Your task to perform on an android device: turn on wifi Image 0: 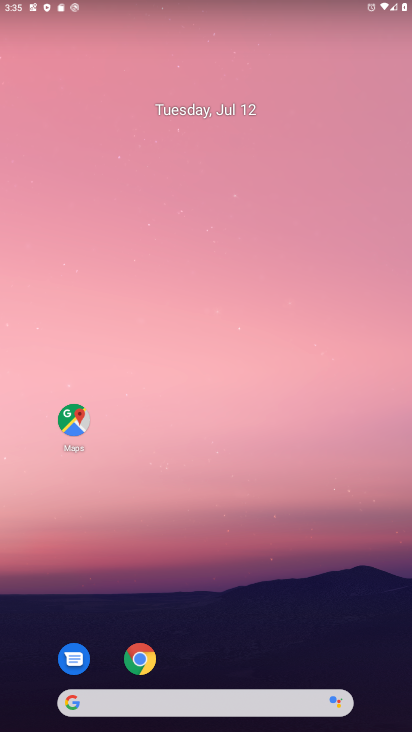
Step 0: drag from (163, 223) to (224, 48)
Your task to perform on an android device: turn on wifi Image 1: 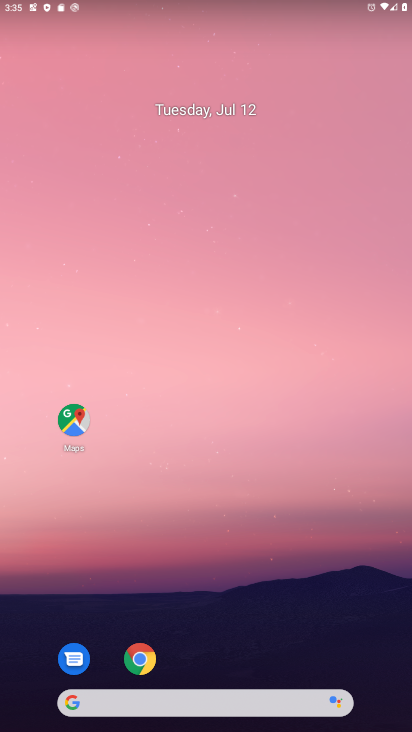
Step 1: click (202, 159)
Your task to perform on an android device: turn on wifi Image 2: 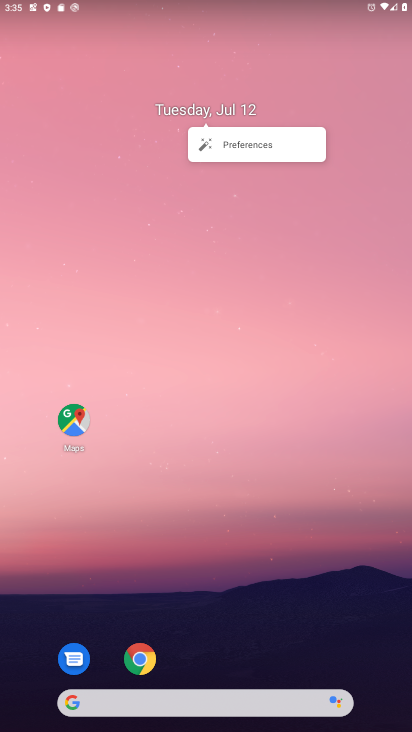
Step 2: click (221, 673)
Your task to perform on an android device: turn on wifi Image 3: 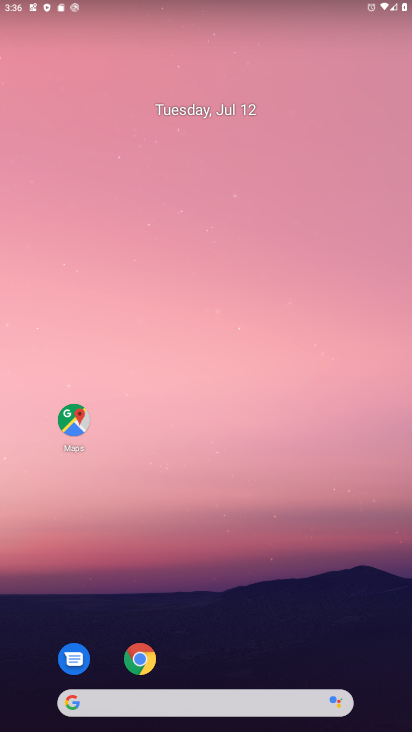
Step 3: drag from (181, 514) to (118, 88)
Your task to perform on an android device: turn on wifi Image 4: 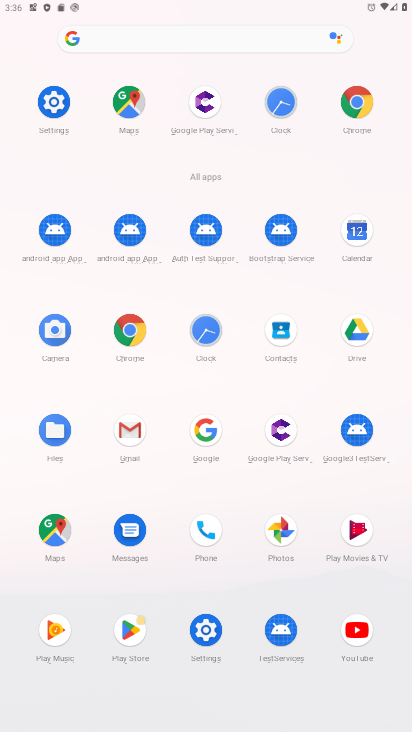
Step 4: click (40, 102)
Your task to perform on an android device: turn on wifi Image 5: 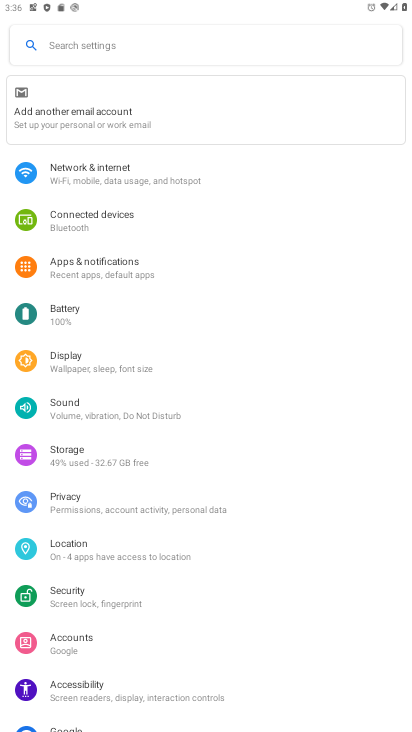
Step 5: click (178, 168)
Your task to perform on an android device: turn on wifi Image 6: 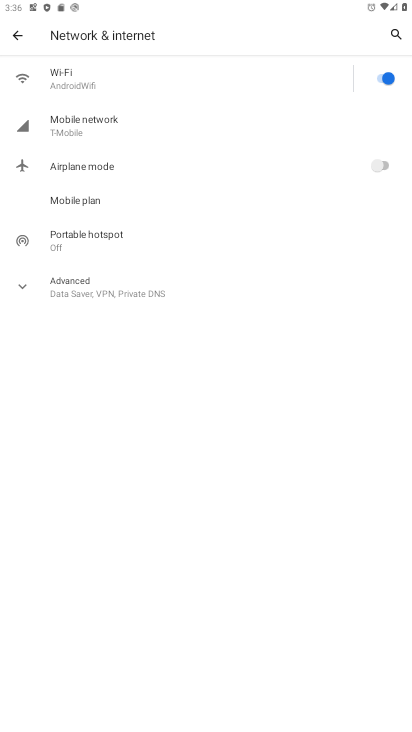
Step 6: click (251, 93)
Your task to perform on an android device: turn on wifi Image 7: 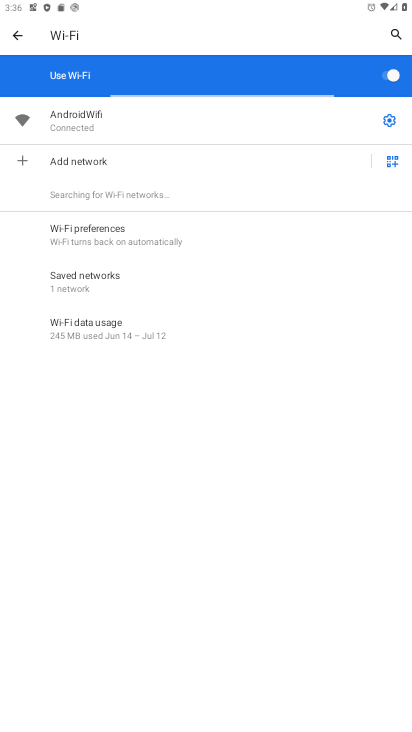
Step 7: task complete